Your task to perform on an android device: install app "NewsBreak: Local News & Alerts" Image 0: 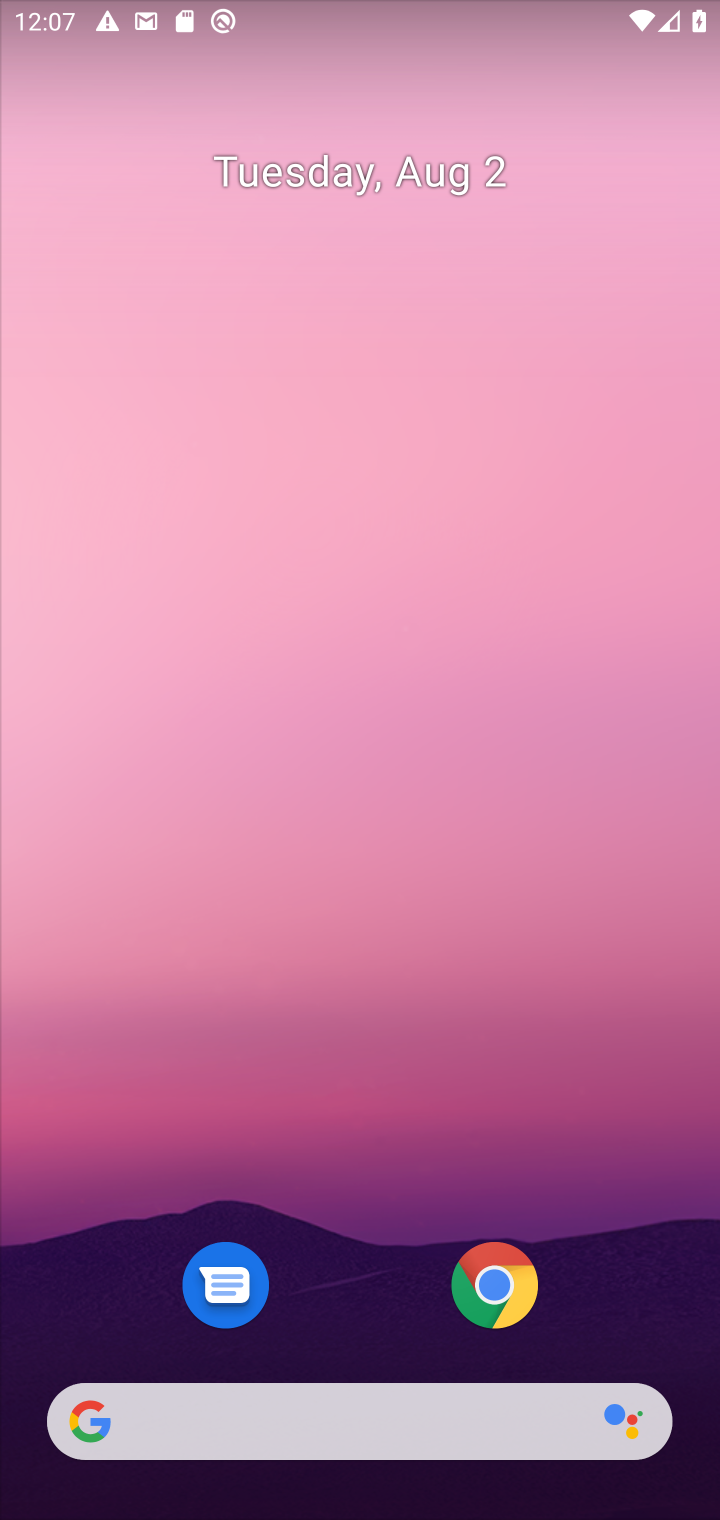
Step 0: drag from (351, 424) to (351, 153)
Your task to perform on an android device: install app "NewsBreak: Local News & Alerts" Image 1: 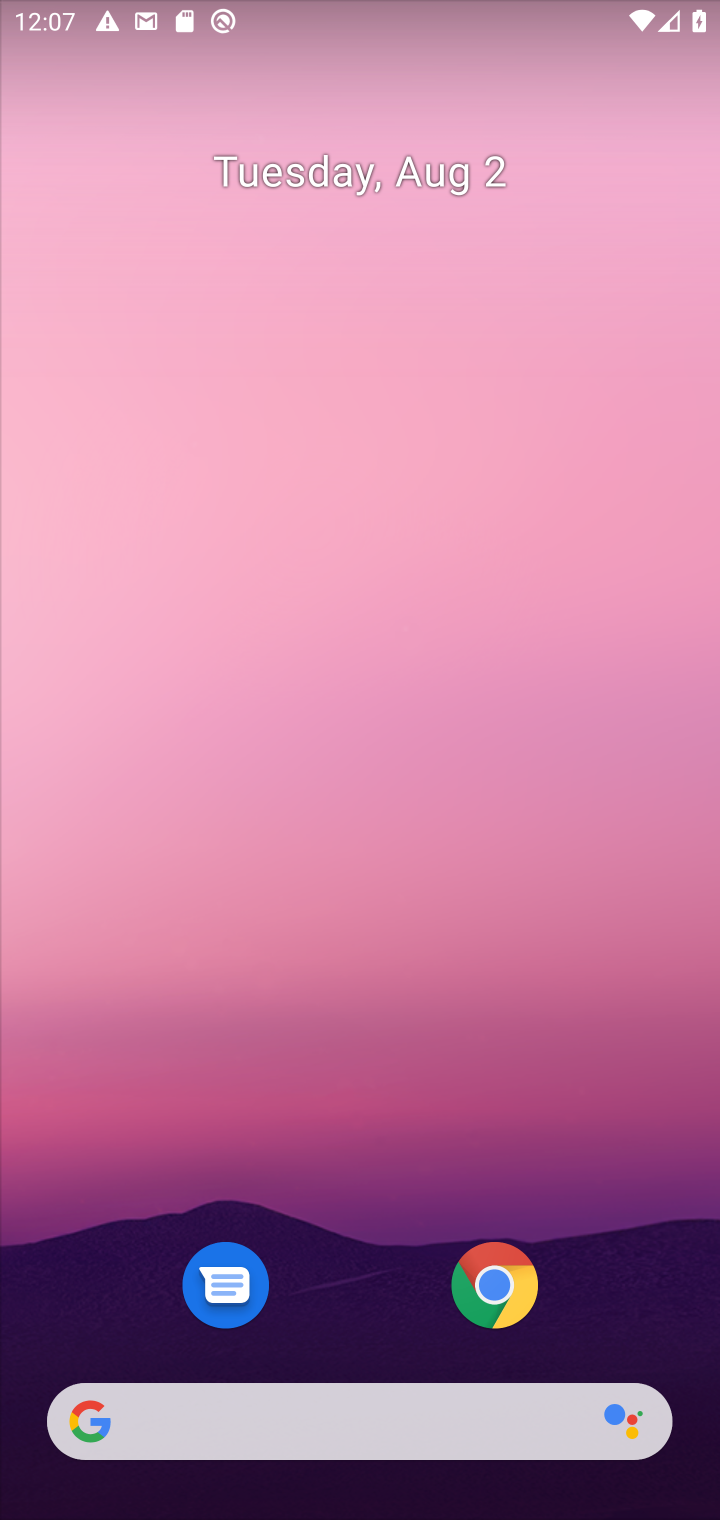
Step 1: drag from (578, 1316) to (567, 98)
Your task to perform on an android device: install app "NewsBreak: Local News & Alerts" Image 2: 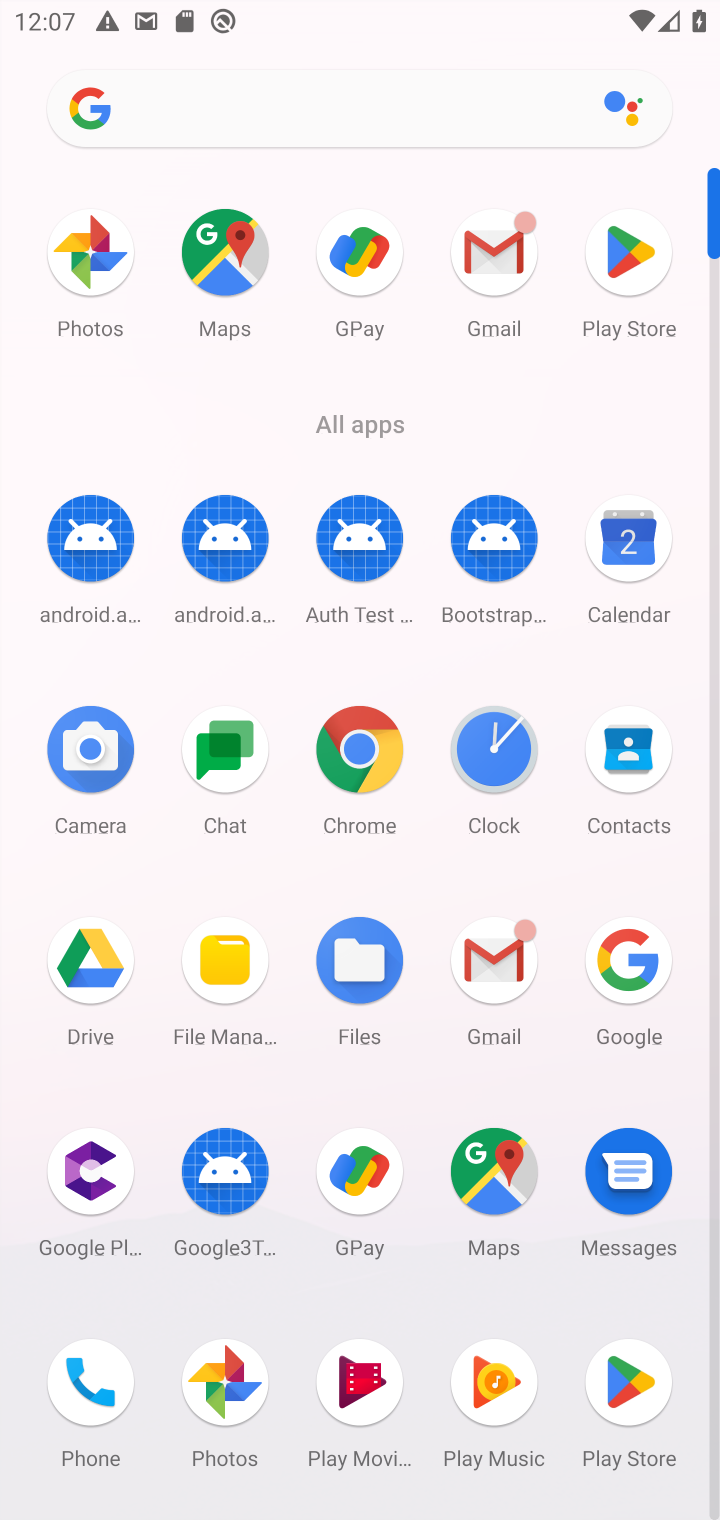
Step 2: click (630, 287)
Your task to perform on an android device: install app "NewsBreak: Local News & Alerts" Image 3: 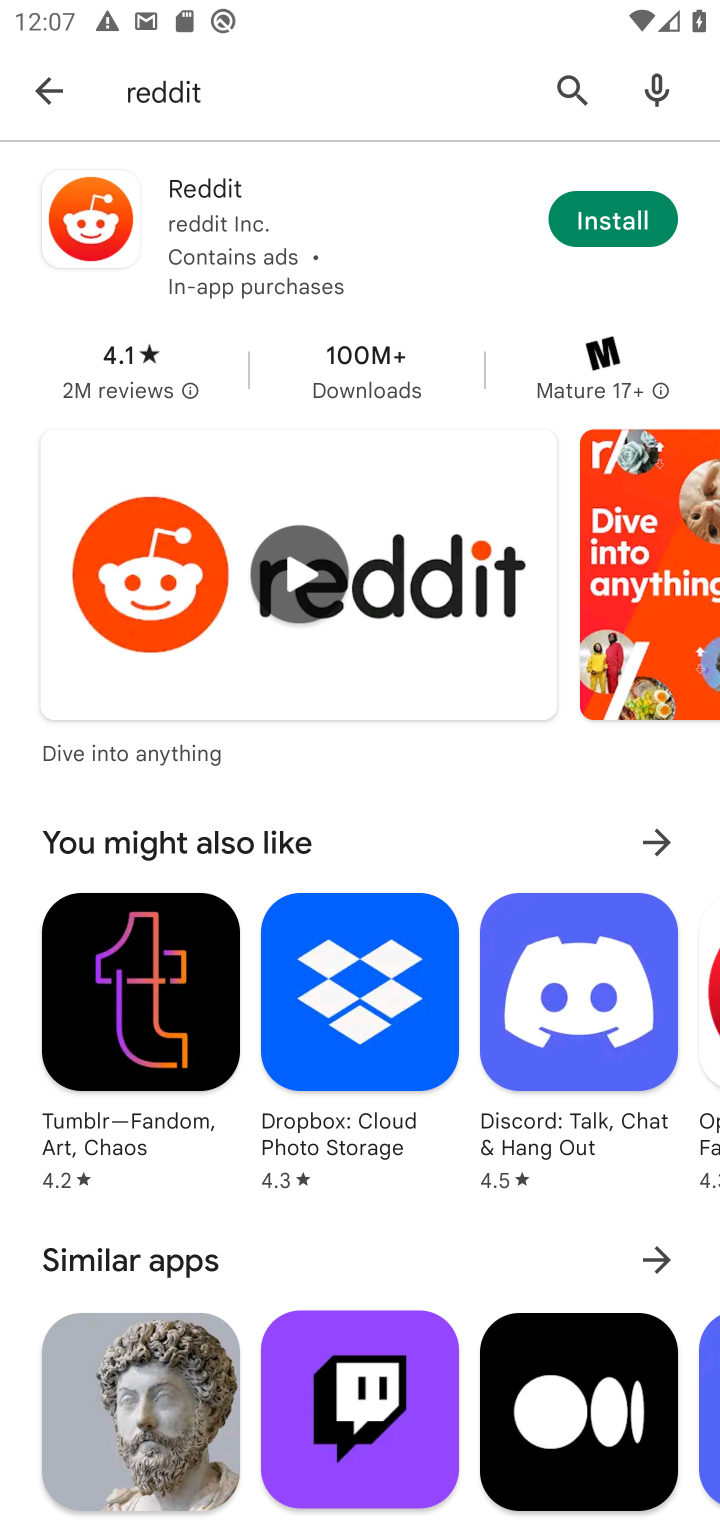
Step 3: click (586, 104)
Your task to perform on an android device: install app "NewsBreak: Local News & Alerts" Image 4: 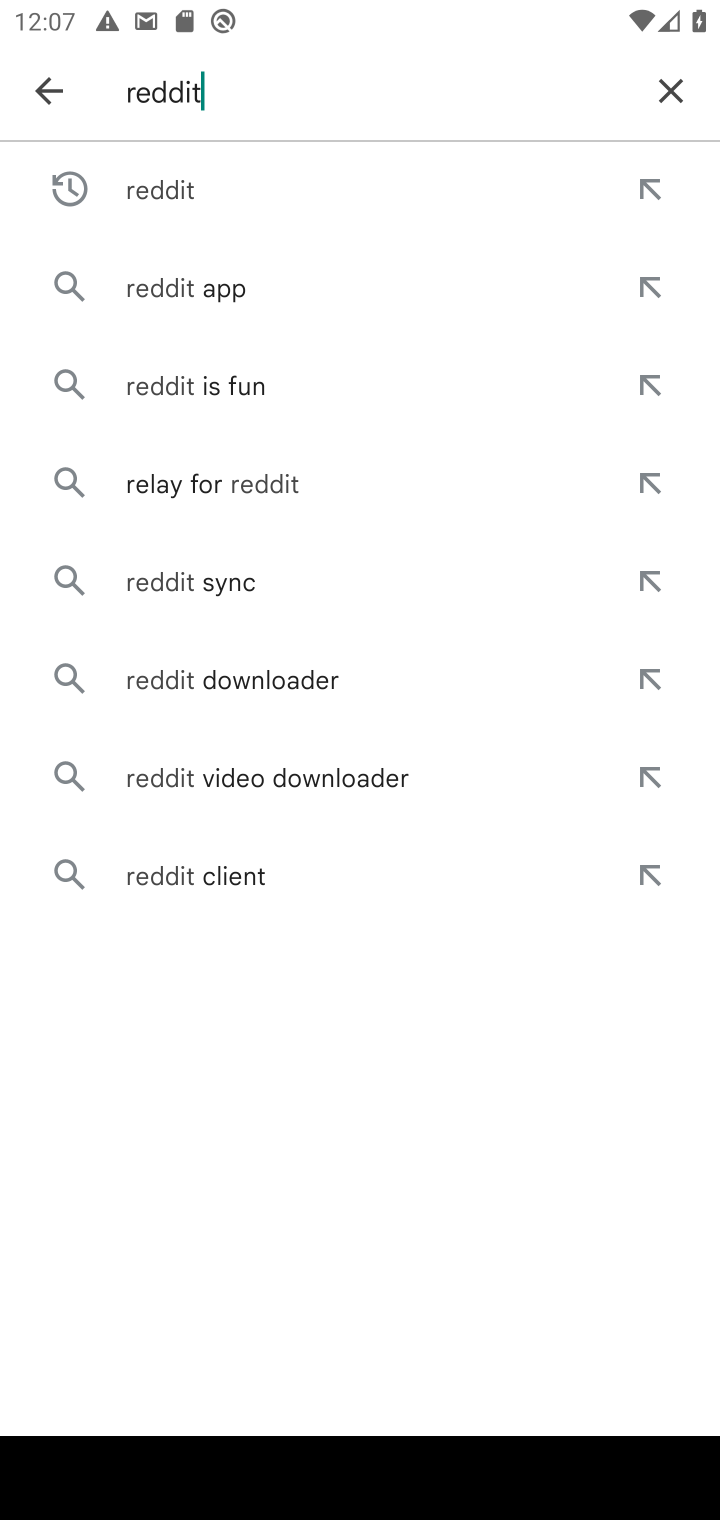
Step 4: click (663, 99)
Your task to perform on an android device: install app "NewsBreak: Local News & Alerts" Image 5: 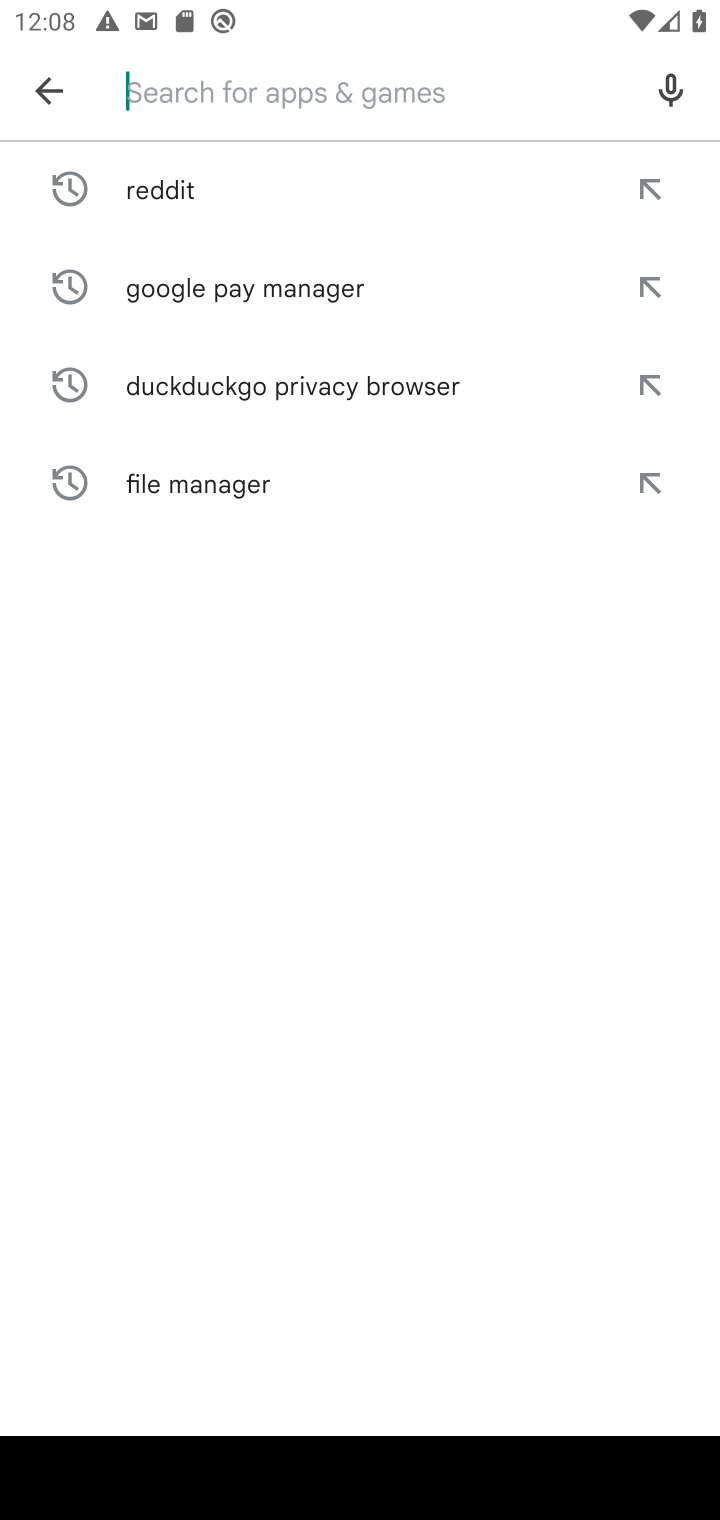
Step 5: type "NewsBreak; Local News & Aerts"
Your task to perform on an android device: install app "NewsBreak: Local News & Alerts" Image 6: 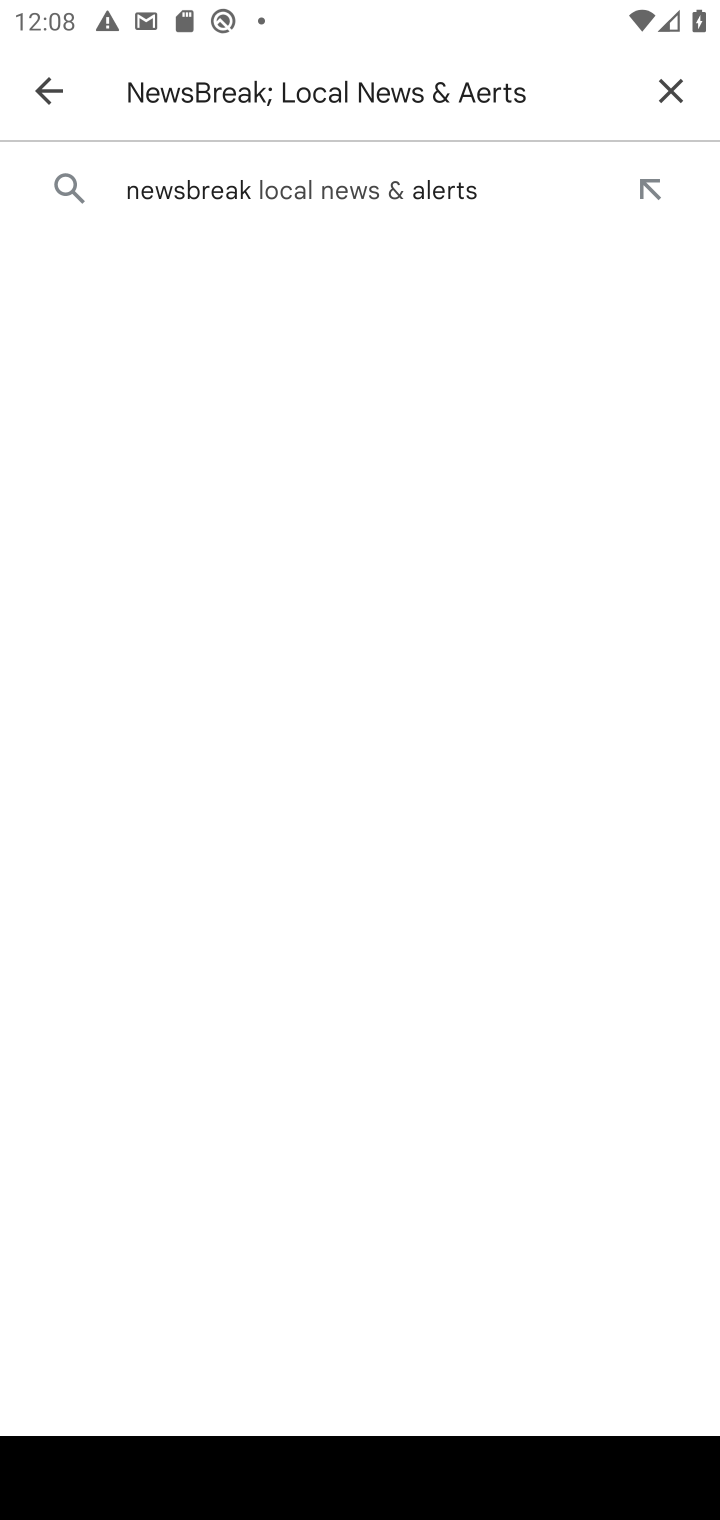
Step 6: click (137, 197)
Your task to perform on an android device: install app "NewsBreak: Local News & Alerts" Image 7: 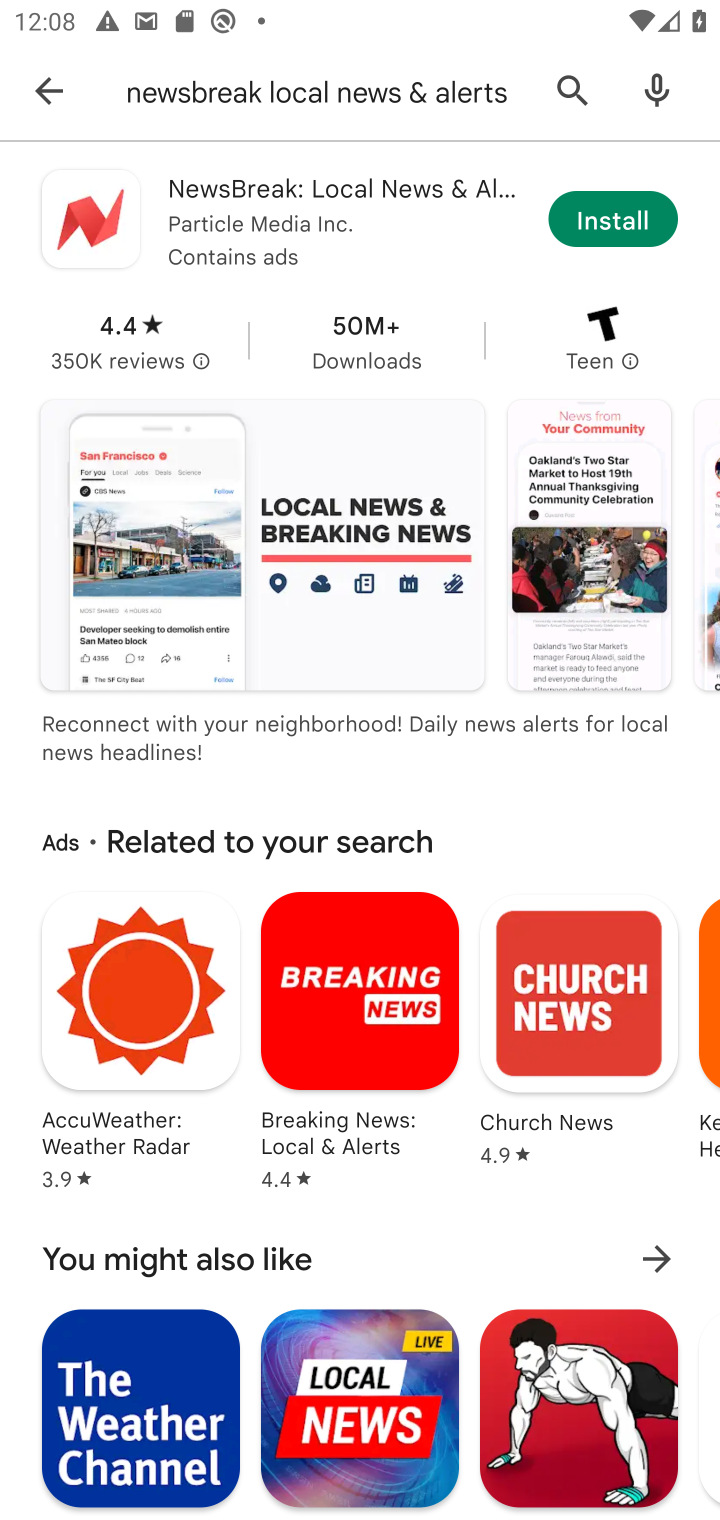
Step 7: click (606, 209)
Your task to perform on an android device: install app "NewsBreak: Local News & Alerts" Image 8: 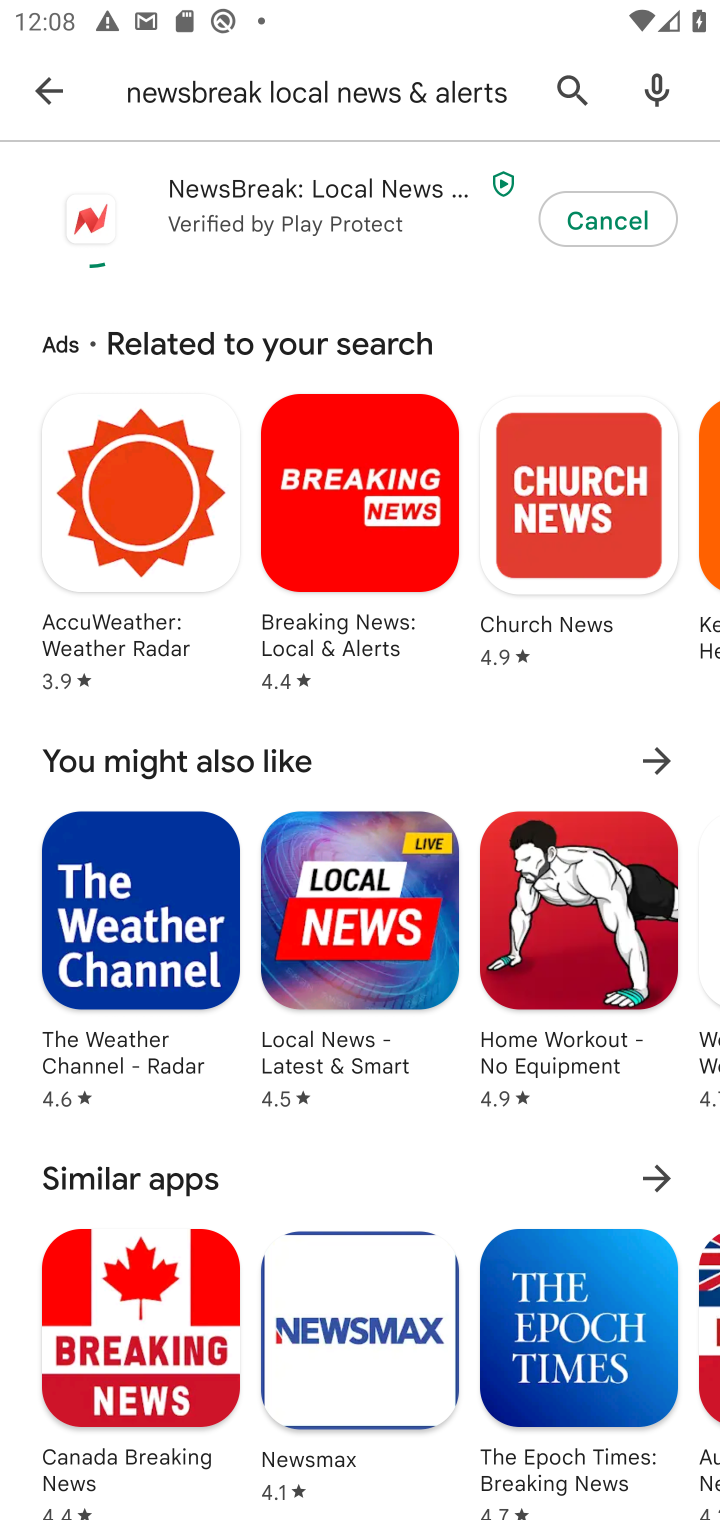
Step 8: click (409, 184)
Your task to perform on an android device: install app "NewsBreak: Local News & Alerts" Image 9: 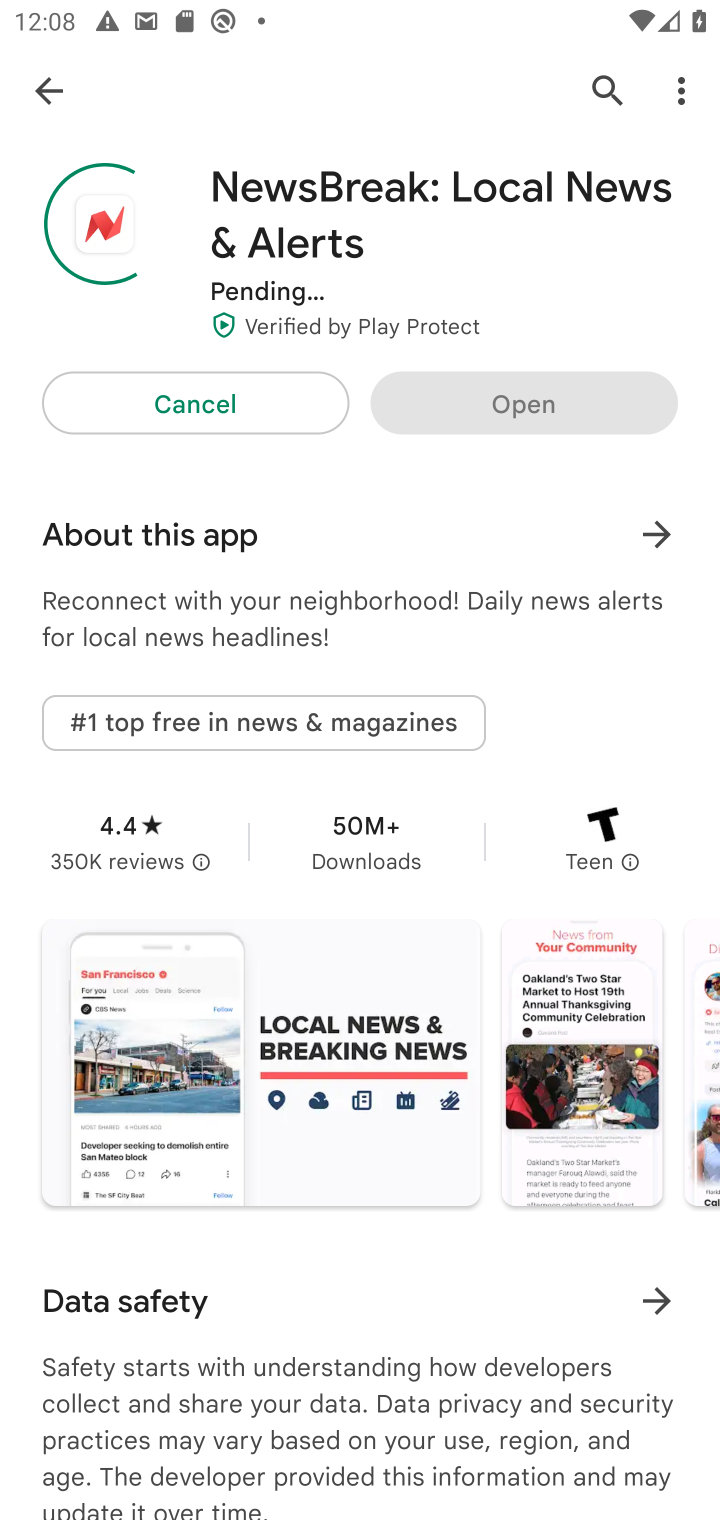
Step 9: click (594, 856)
Your task to perform on an android device: install app "NewsBreak: Local News & Alerts" Image 10: 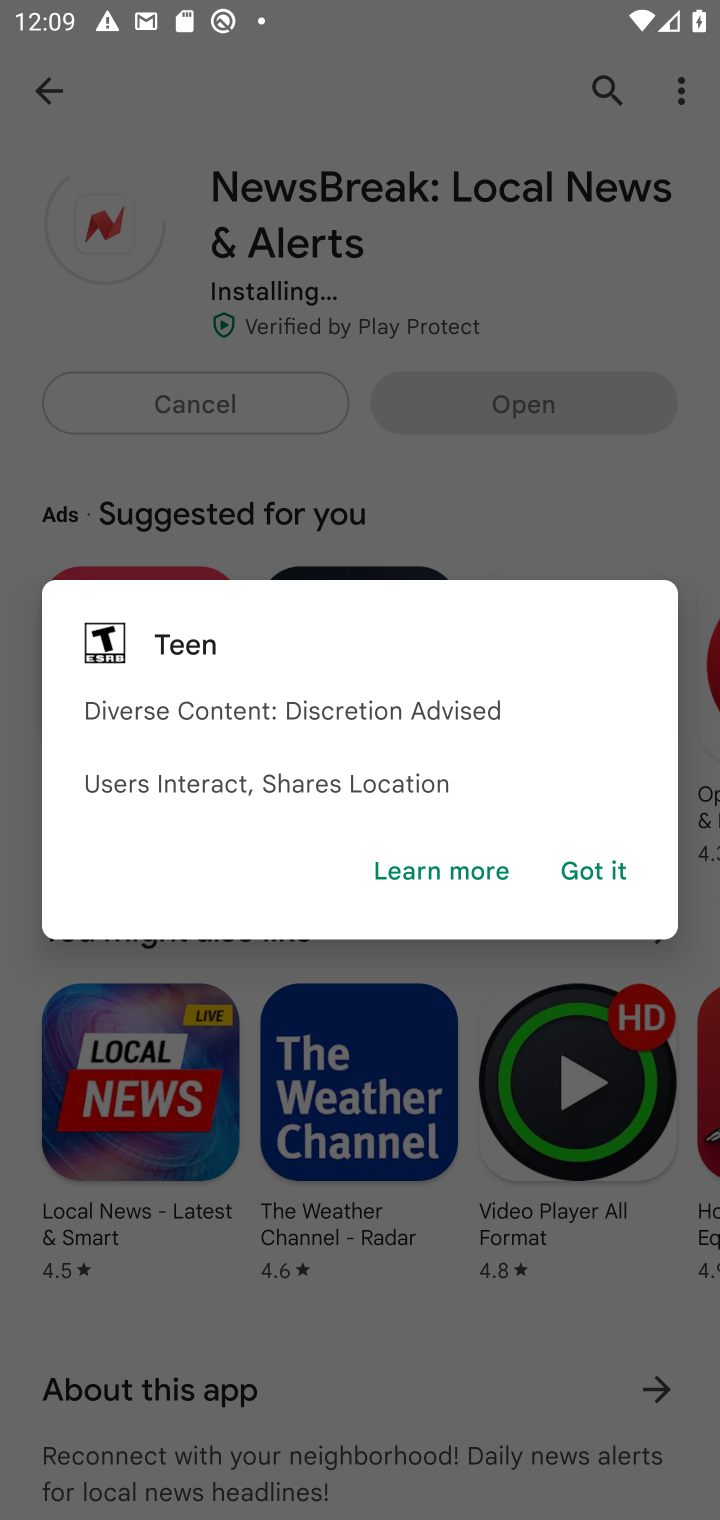
Step 10: click (571, 495)
Your task to perform on an android device: install app "NewsBreak: Local News & Alerts" Image 11: 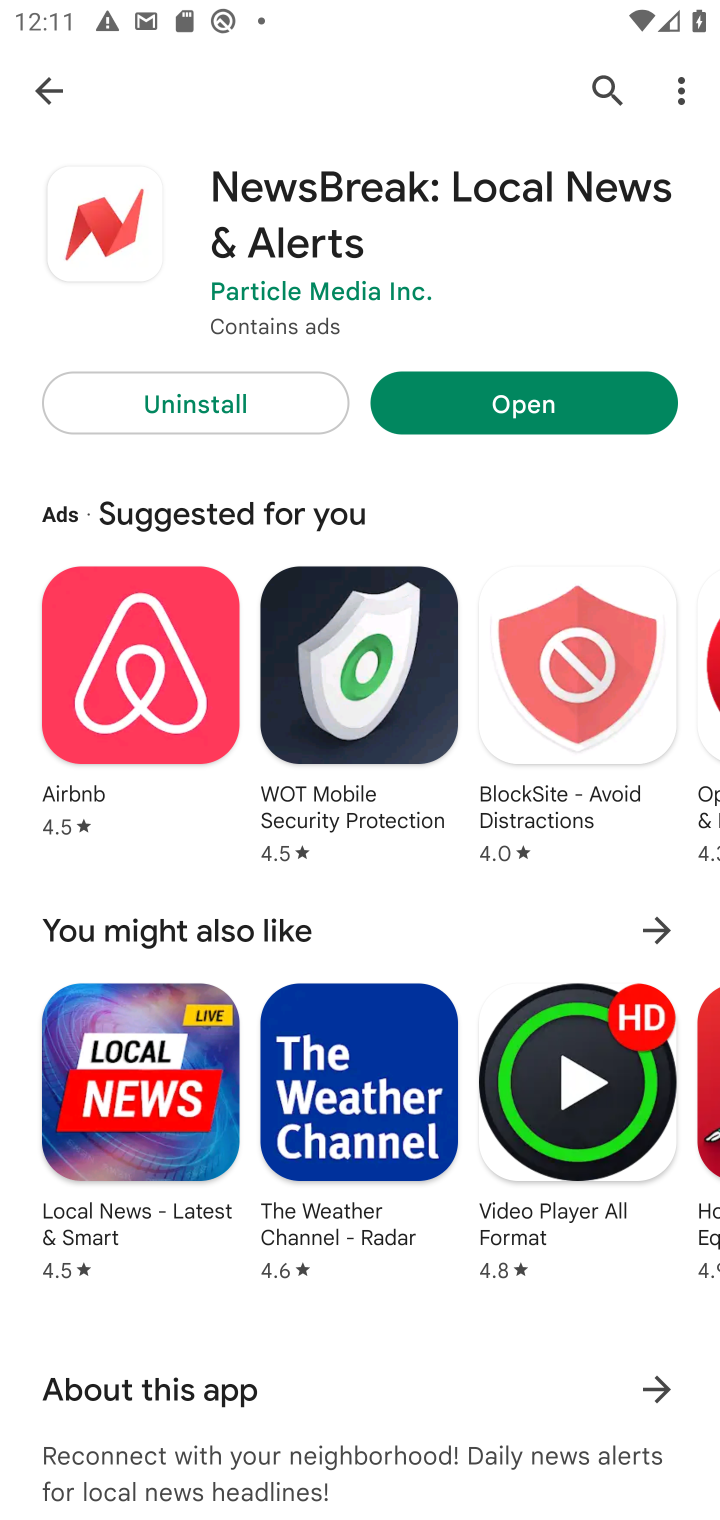
Step 11: task complete